Your task to perform on an android device: Go to Maps Image 0: 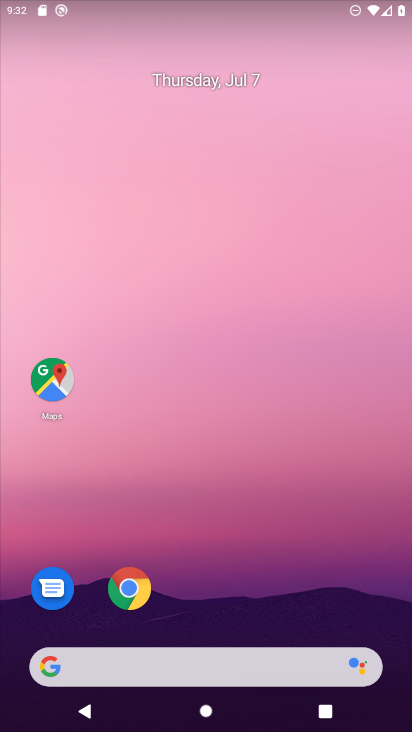
Step 0: click (66, 379)
Your task to perform on an android device: Go to Maps Image 1: 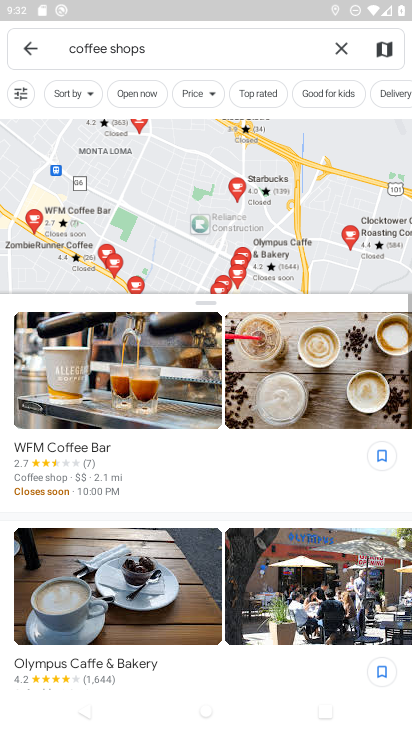
Step 1: task complete